Your task to perform on an android device: Open Chrome and go to the settings page Image 0: 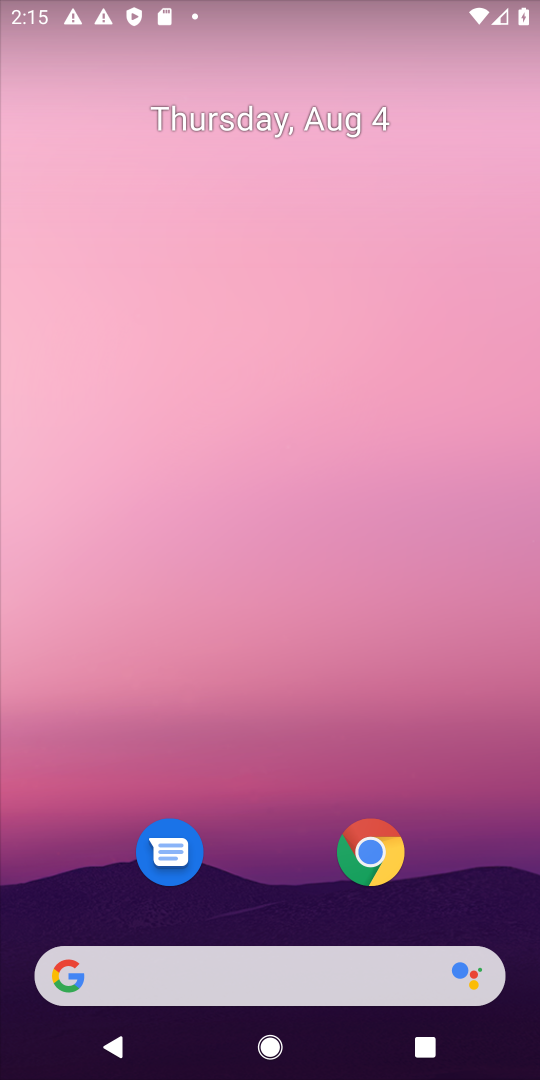
Step 0: drag from (250, 796) to (290, 94)
Your task to perform on an android device: Open Chrome and go to the settings page Image 1: 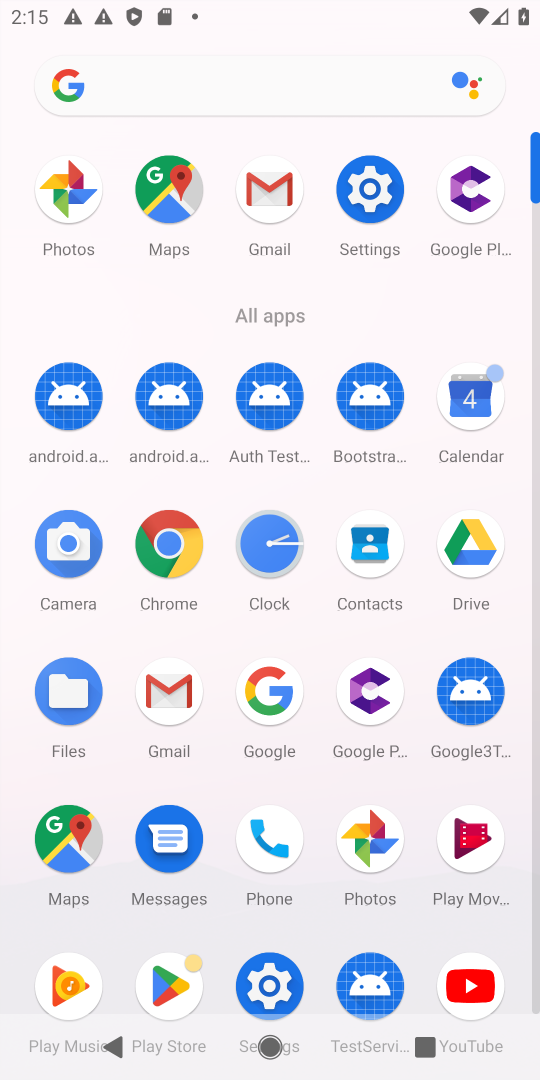
Step 1: click (371, 192)
Your task to perform on an android device: Open Chrome and go to the settings page Image 2: 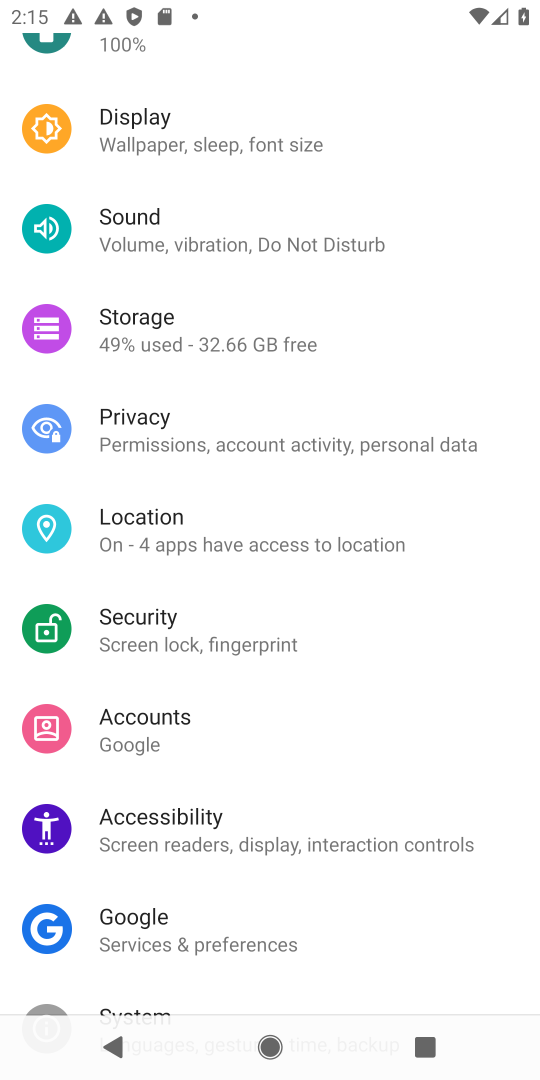
Step 2: drag from (221, 911) to (297, 37)
Your task to perform on an android device: Open Chrome and go to the settings page Image 3: 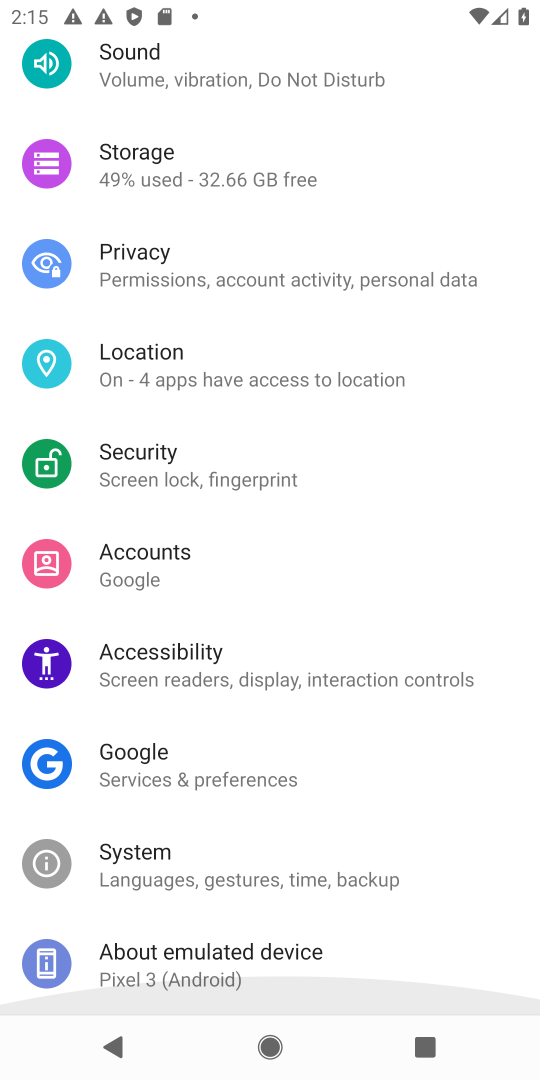
Step 3: drag from (312, 177) to (342, 971)
Your task to perform on an android device: Open Chrome and go to the settings page Image 4: 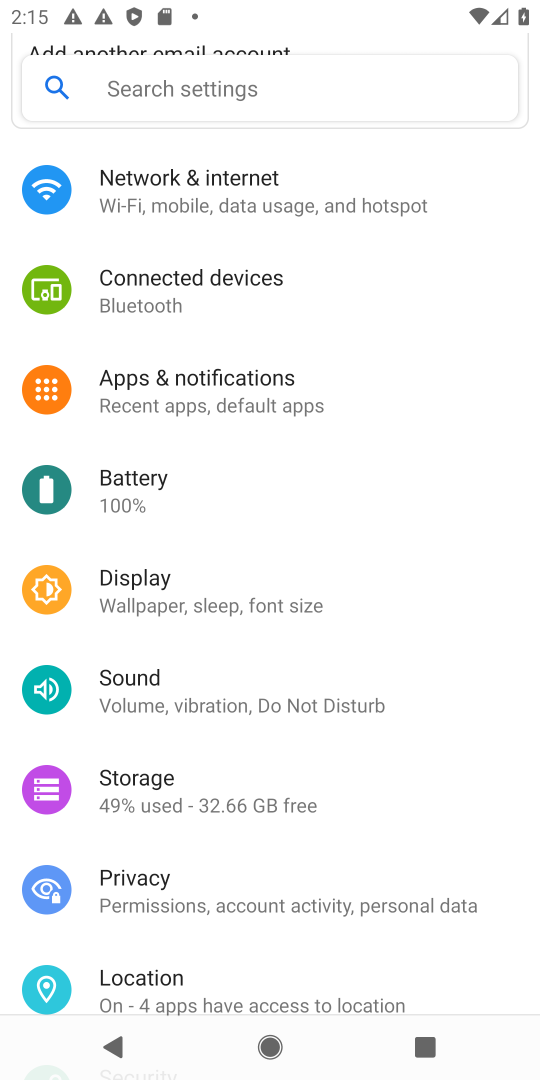
Step 4: press back button
Your task to perform on an android device: Open Chrome and go to the settings page Image 5: 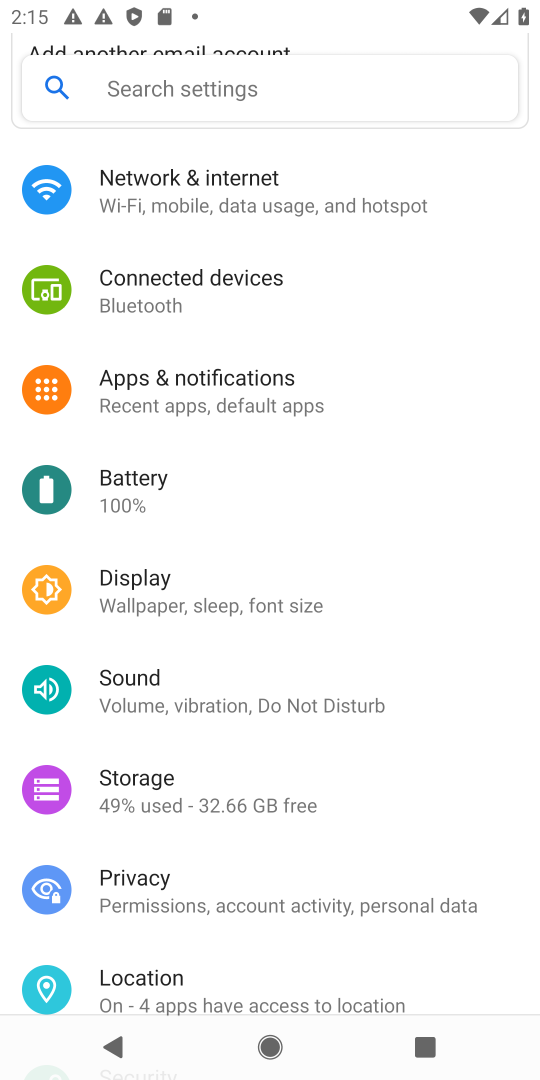
Step 5: press back button
Your task to perform on an android device: Open Chrome and go to the settings page Image 6: 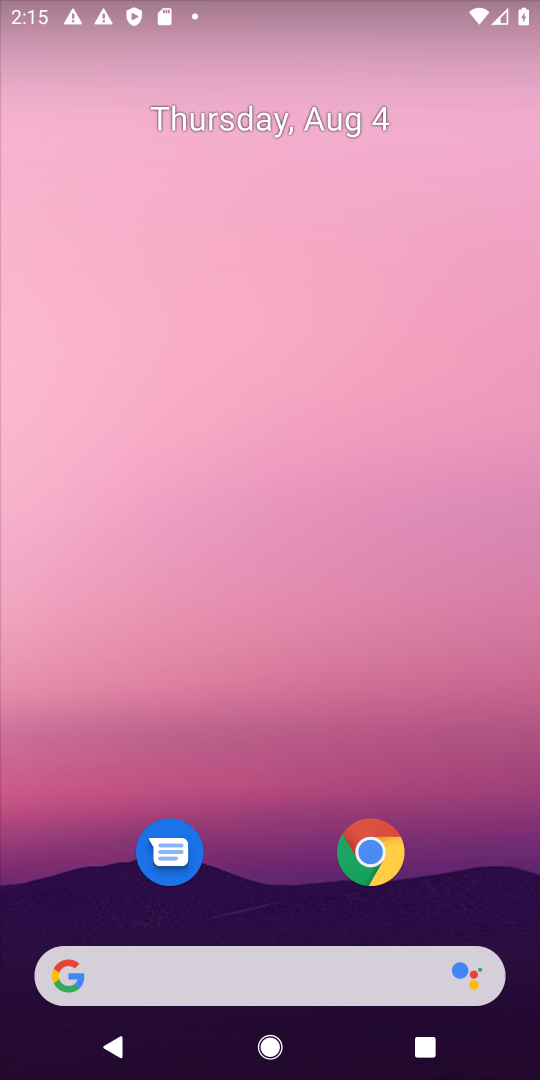
Step 6: drag from (185, 887) to (332, 42)
Your task to perform on an android device: Open Chrome and go to the settings page Image 7: 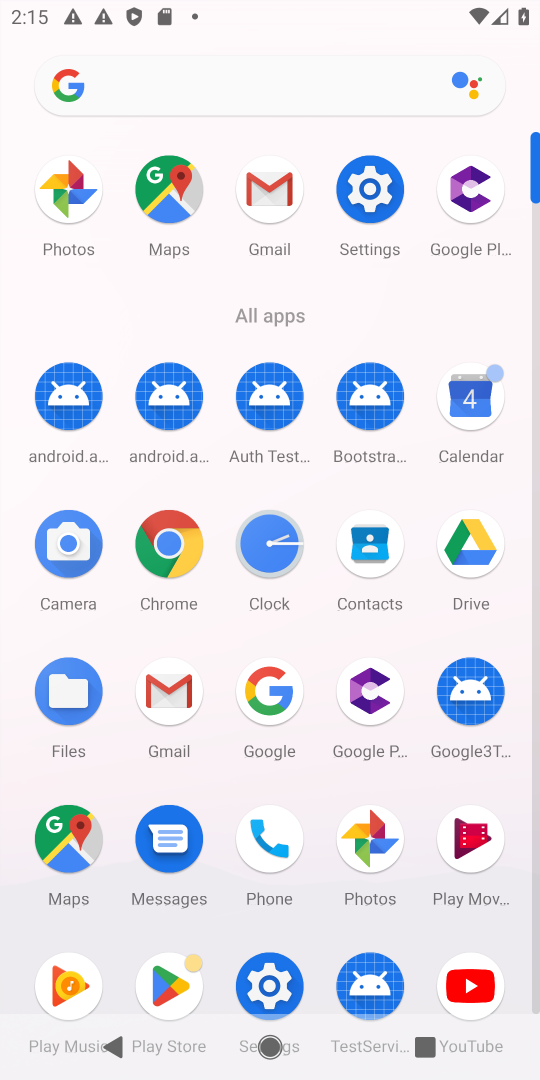
Step 7: click (269, 983)
Your task to perform on an android device: Open Chrome and go to the settings page Image 8: 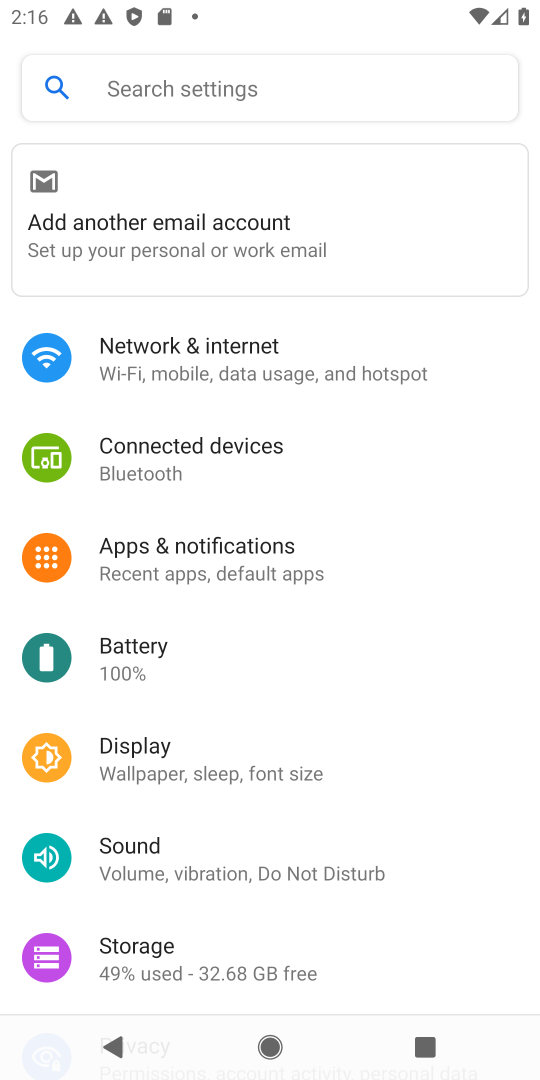
Step 8: task complete